Your task to perform on an android device: What's the weather today? Image 0: 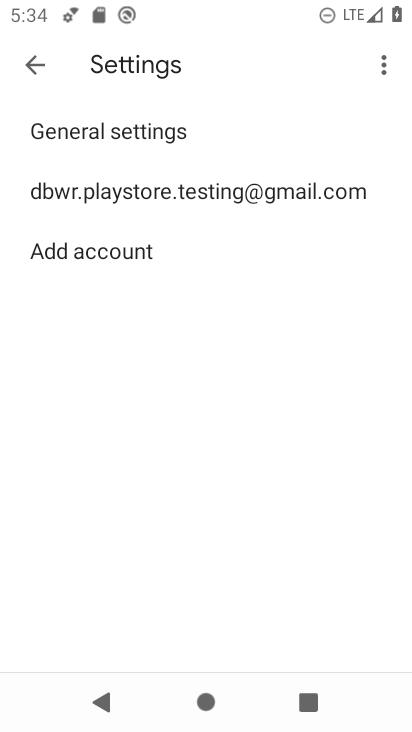
Step 0: press home button
Your task to perform on an android device: What's the weather today? Image 1: 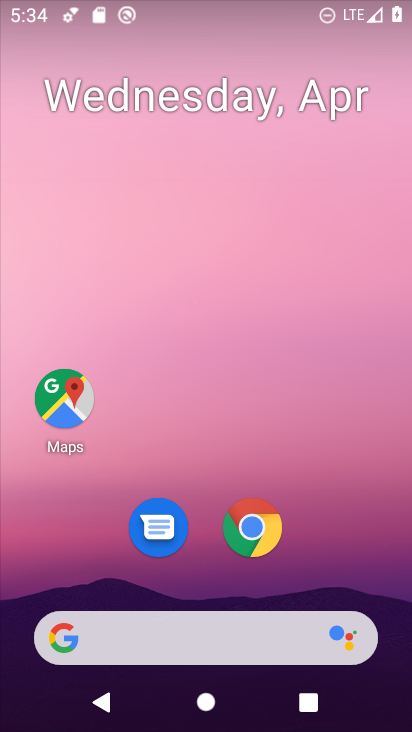
Step 1: click (256, 531)
Your task to perform on an android device: What's the weather today? Image 2: 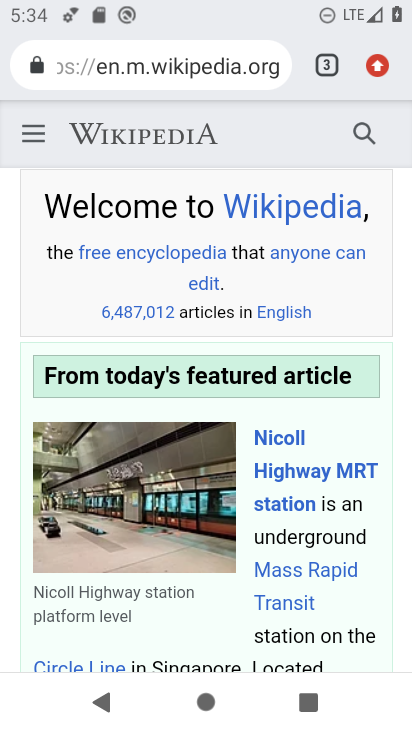
Step 2: click (159, 73)
Your task to perform on an android device: What's the weather today? Image 3: 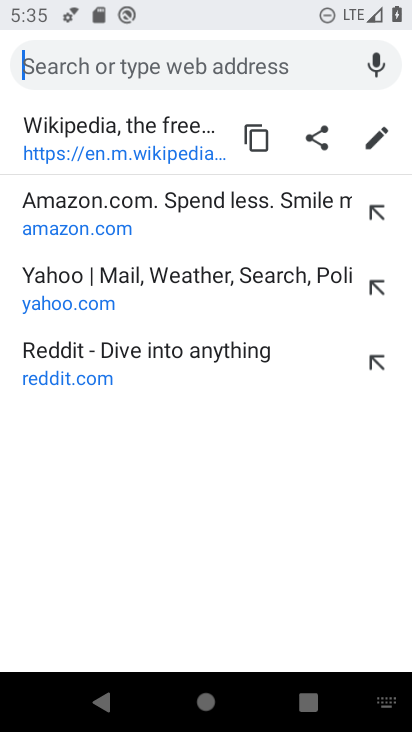
Step 3: type "weather"
Your task to perform on an android device: What's the weather today? Image 4: 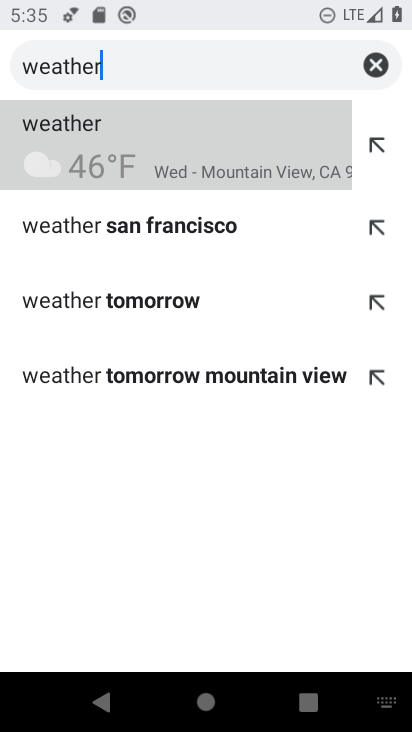
Step 4: click (98, 144)
Your task to perform on an android device: What's the weather today? Image 5: 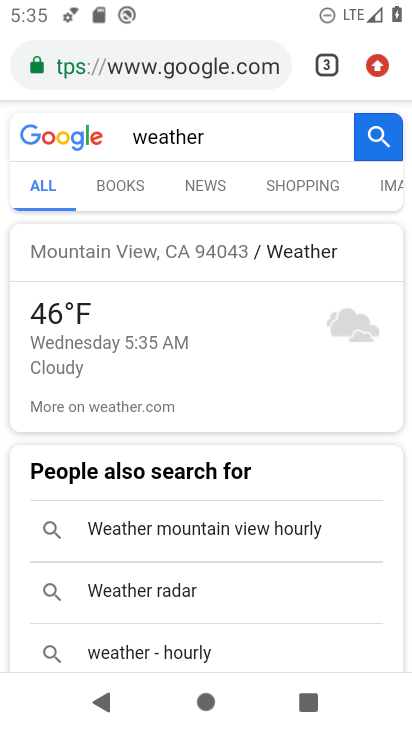
Step 5: click (125, 371)
Your task to perform on an android device: What's the weather today? Image 6: 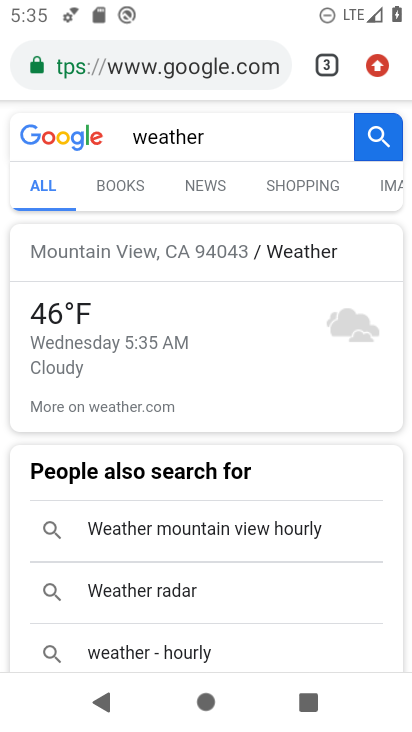
Step 6: click (61, 329)
Your task to perform on an android device: What's the weather today? Image 7: 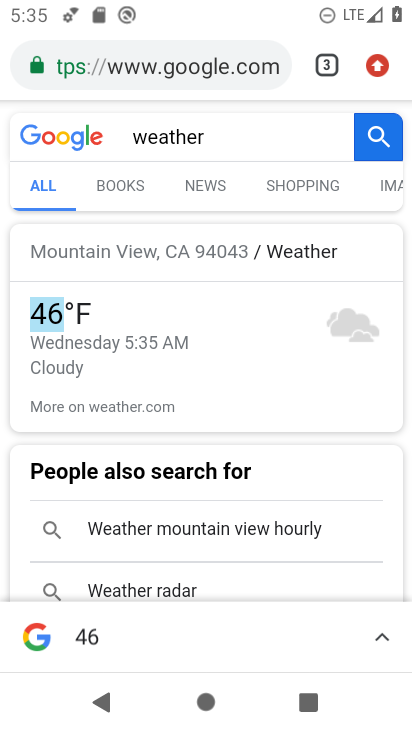
Step 7: click (88, 349)
Your task to perform on an android device: What's the weather today? Image 8: 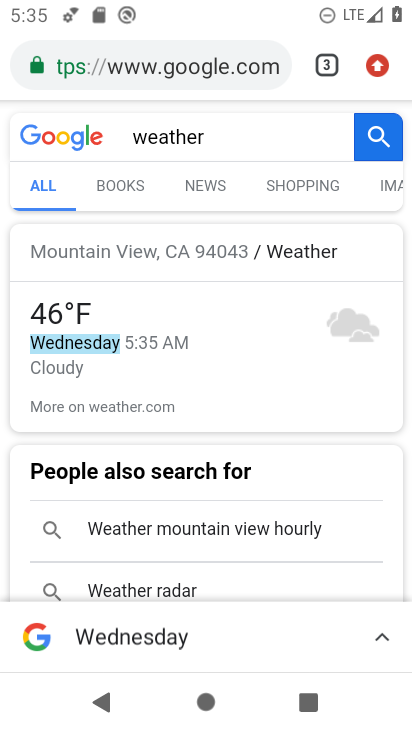
Step 8: click (123, 372)
Your task to perform on an android device: What's the weather today? Image 9: 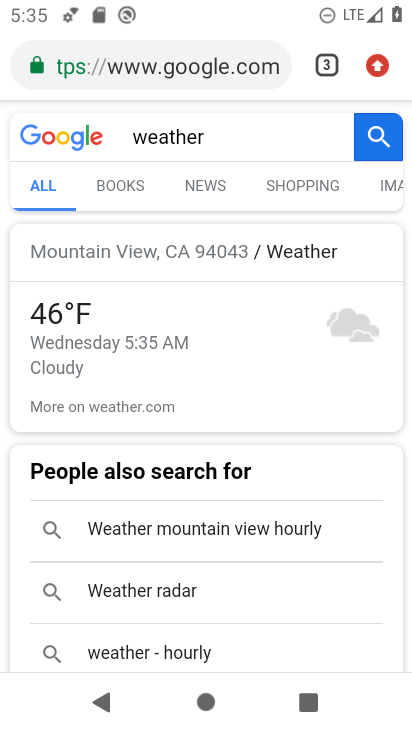
Step 9: task complete